Your task to perform on an android device: turn on data saver in the chrome app Image 0: 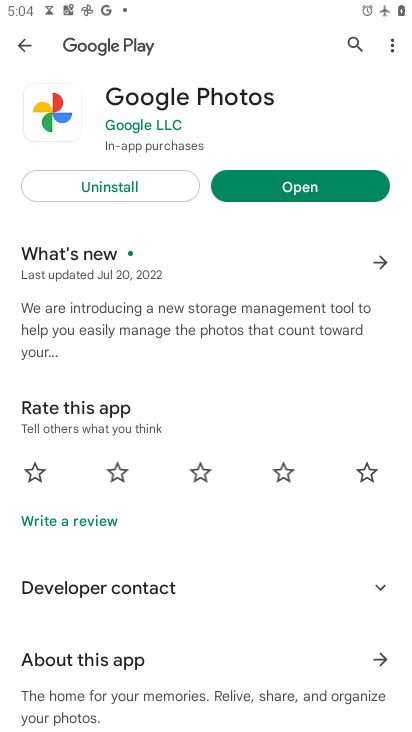
Step 0: press home button
Your task to perform on an android device: turn on data saver in the chrome app Image 1: 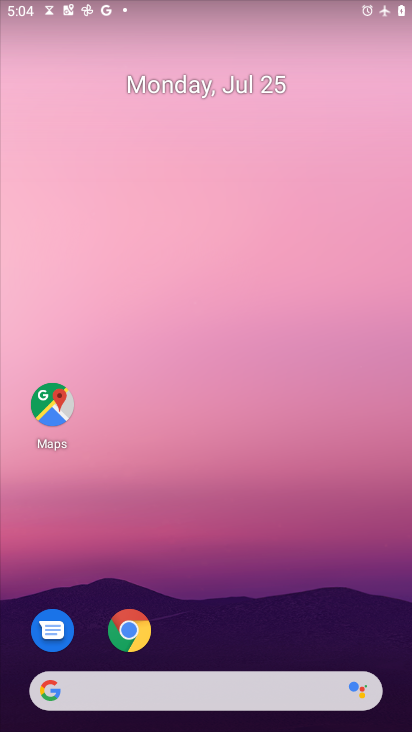
Step 1: drag from (181, 680) to (208, 49)
Your task to perform on an android device: turn on data saver in the chrome app Image 2: 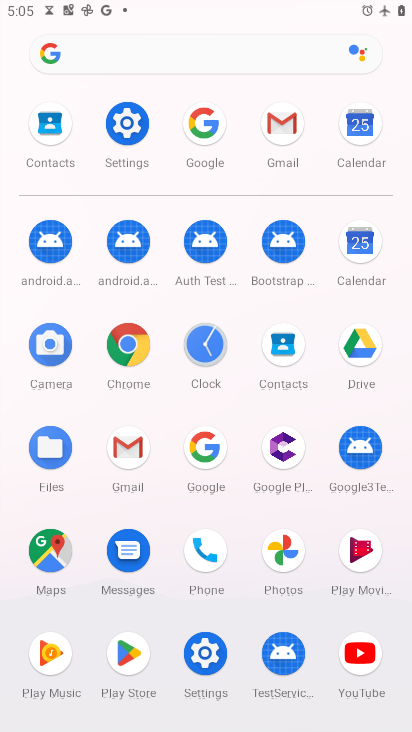
Step 2: click (128, 346)
Your task to perform on an android device: turn on data saver in the chrome app Image 3: 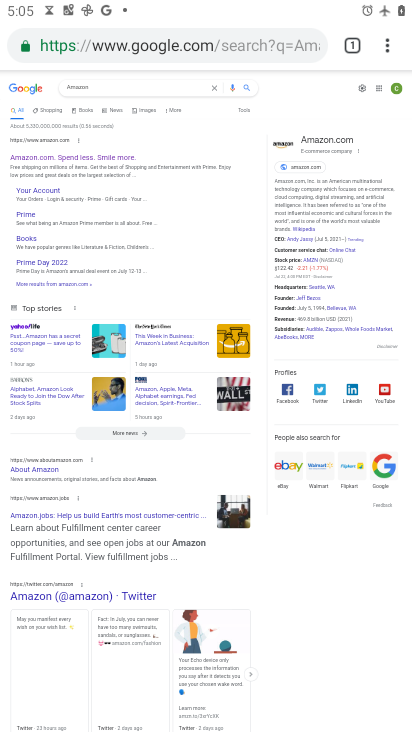
Step 3: click (387, 48)
Your task to perform on an android device: turn on data saver in the chrome app Image 4: 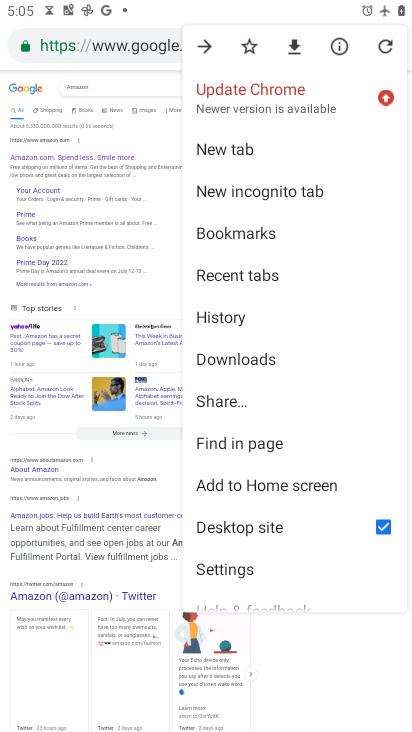
Step 4: click (236, 569)
Your task to perform on an android device: turn on data saver in the chrome app Image 5: 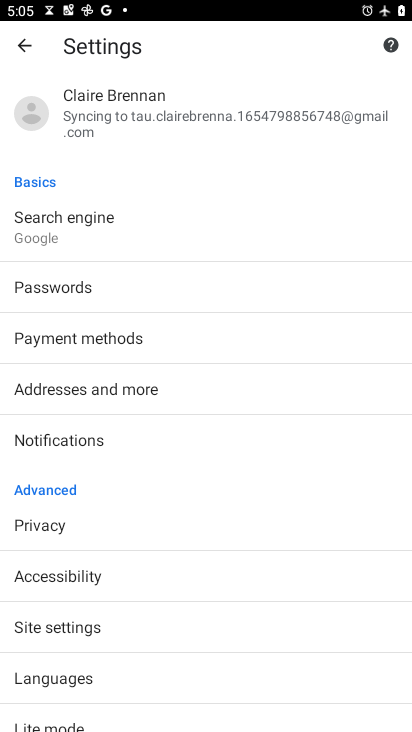
Step 5: drag from (104, 531) to (182, 377)
Your task to perform on an android device: turn on data saver in the chrome app Image 6: 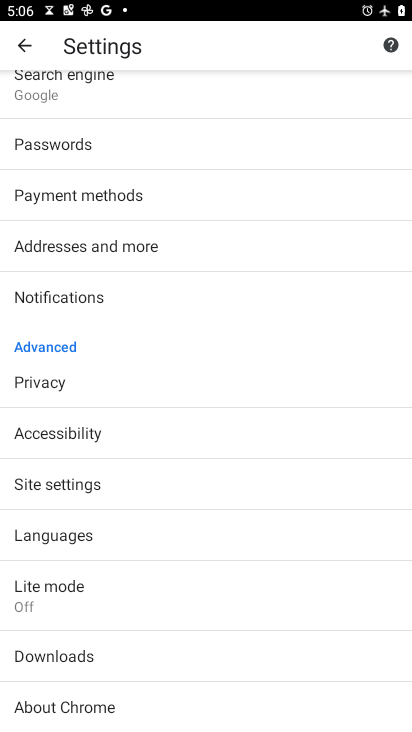
Step 6: click (67, 586)
Your task to perform on an android device: turn on data saver in the chrome app Image 7: 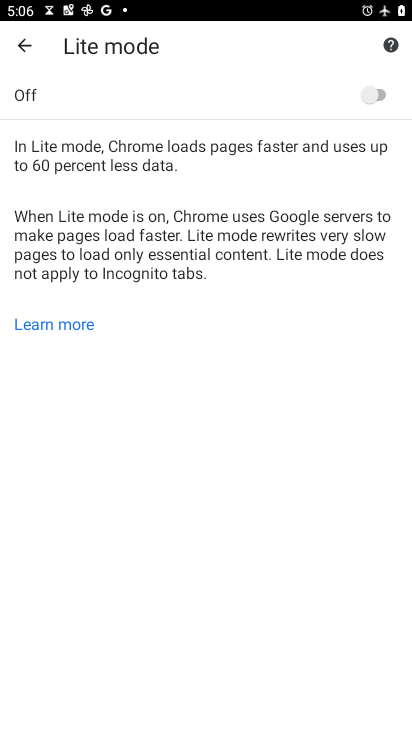
Step 7: click (373, 97)
Your task to perform on an android device: turn on data saver in the chrome app Image 8: 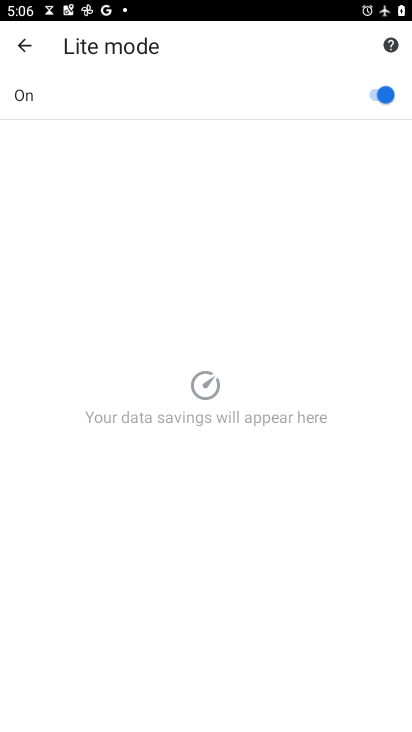
Step 8: task complete